Your task to perform on an android device: set an alarm Image 0: 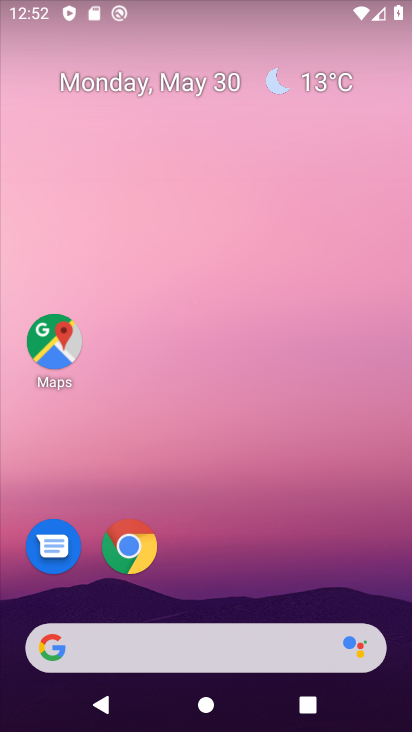
Step 0: press home button
Your task to perform on an android device: set an alarm Image 1: 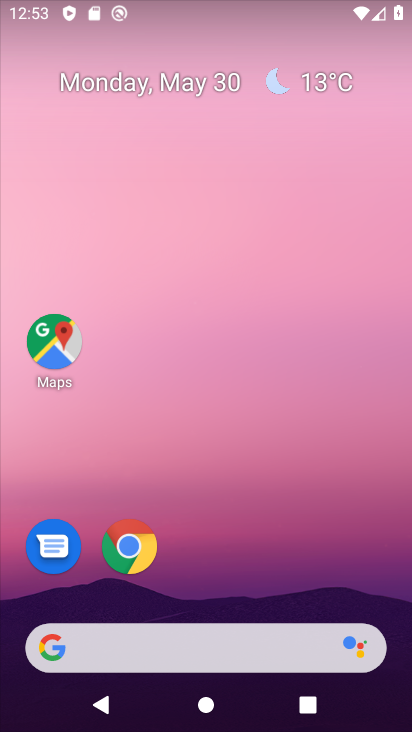
Step 1: drag from (305, 603) to (298, 233)
Your task to perform on an android device: set an alarm Image 2: 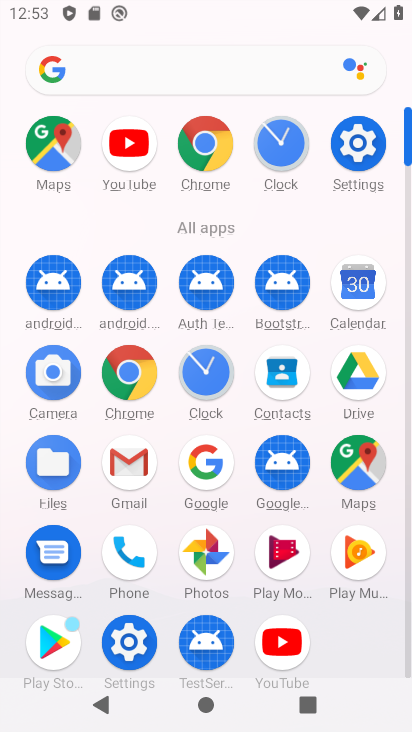
Step 2: click (205, 386)
Your task to perform on an android device: set an alarm Image 3: 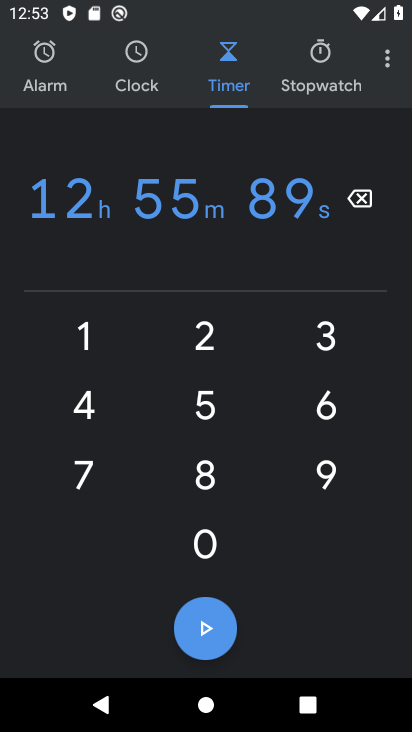
Step 3: click (42, 50)
Your task to perform on an android device: set an alarm Image 4: 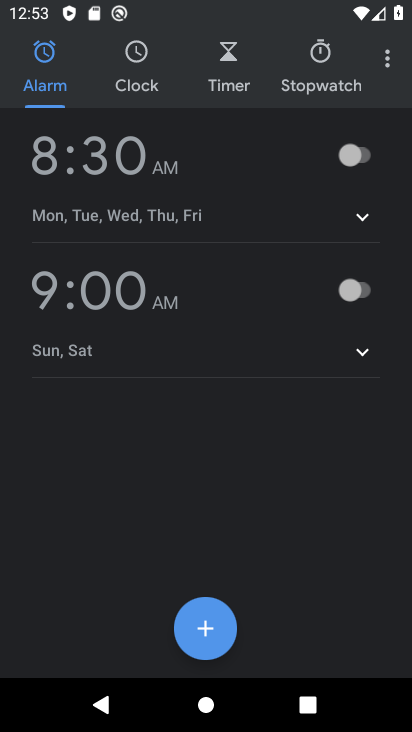
Step 4: click (356, 155)
Your task to perform on an android device: set an alarm Image 5: 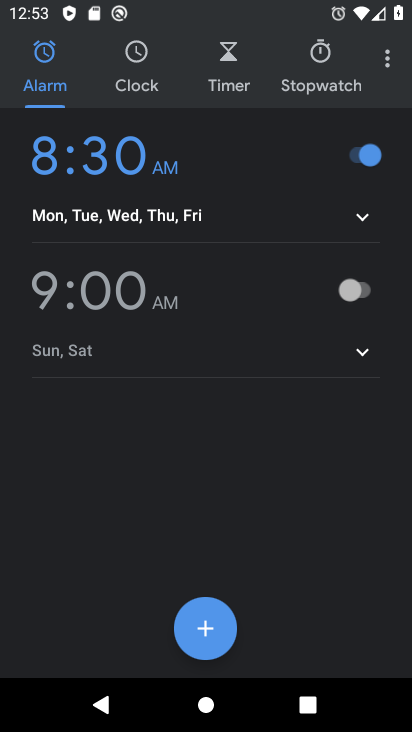
Step 5: task complete